Your task to perform on an android device: Go to privacy settings Image 0: 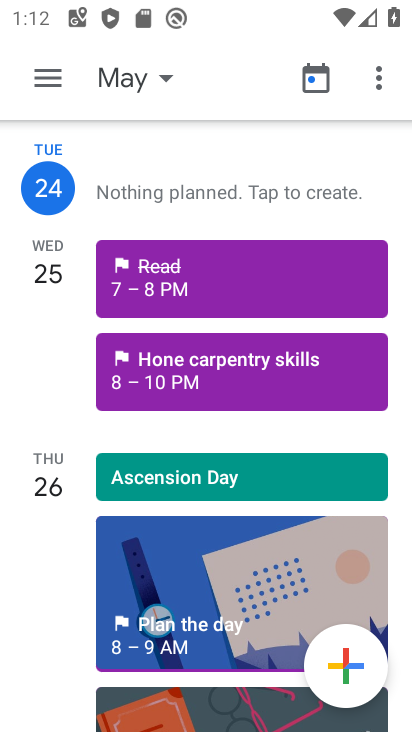
Step 0: press back button
Your task to perform on an android device: Go to privacy settings Image 1: 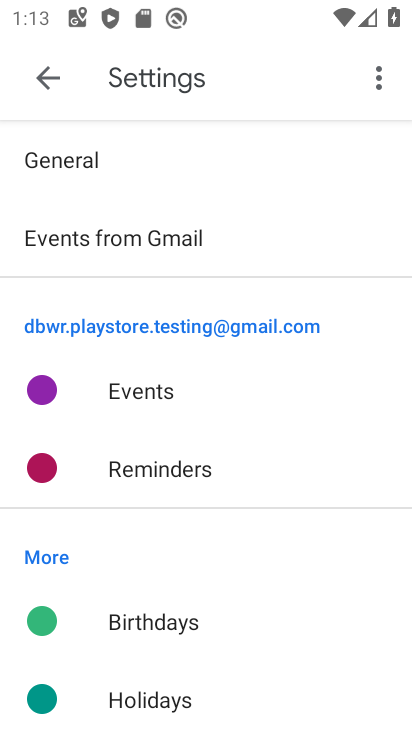
Step 1: click (45, 84)
Your task to perform on an android device: Go to privacy settings Image 2: 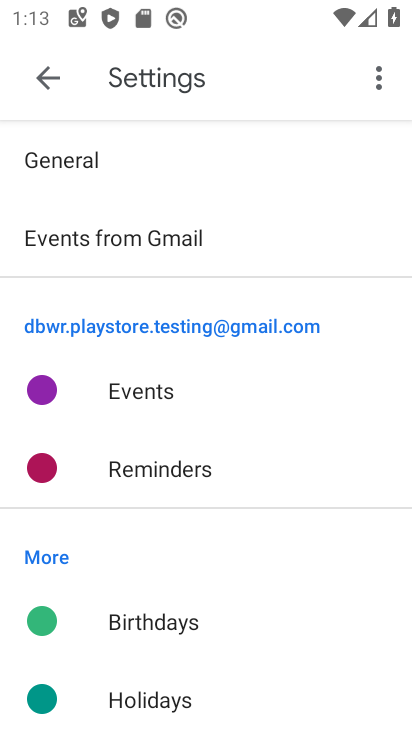
Step 2: click (44, 83)
Your task to perform on an android device: Go to privacy settings Image 3: 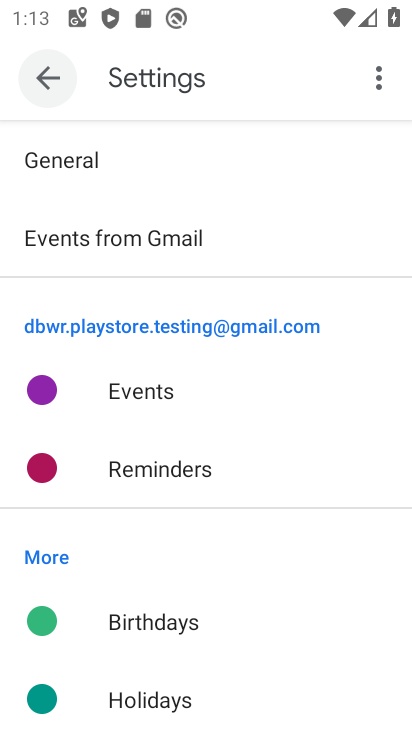
Step 3: click (45, 82)
Your task to perform on an android device: Go to privacy settings Image 4: 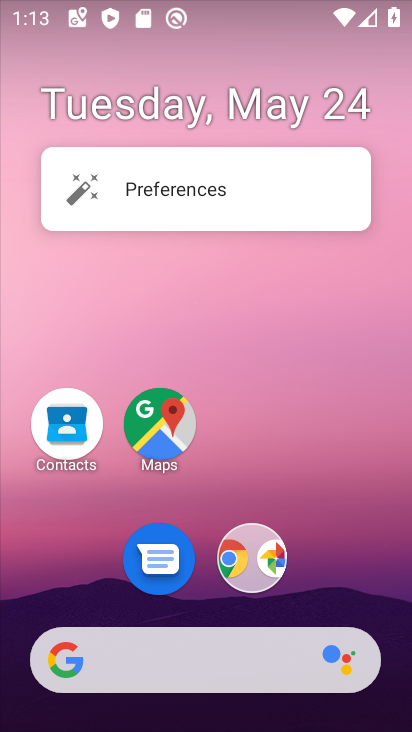
Step 4: drag from (391, 623) to (182, 26)
Your task to perform on an android device: Go to privacy settings Image 5: 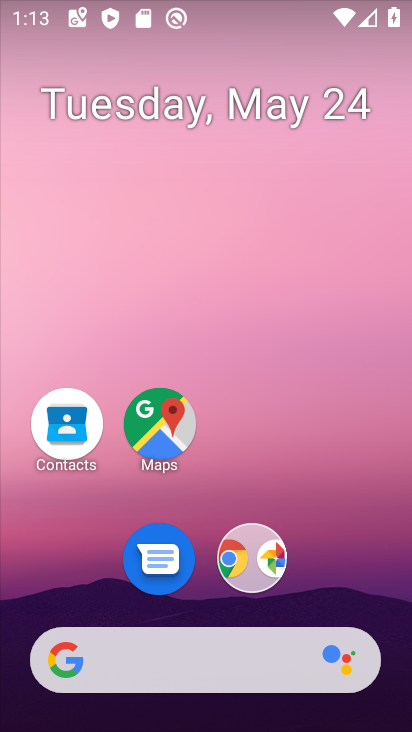
Step 5: drag from (328, 635) to (200, 47)
Your task to perform on an android device: Go to privacy settings Image 6: 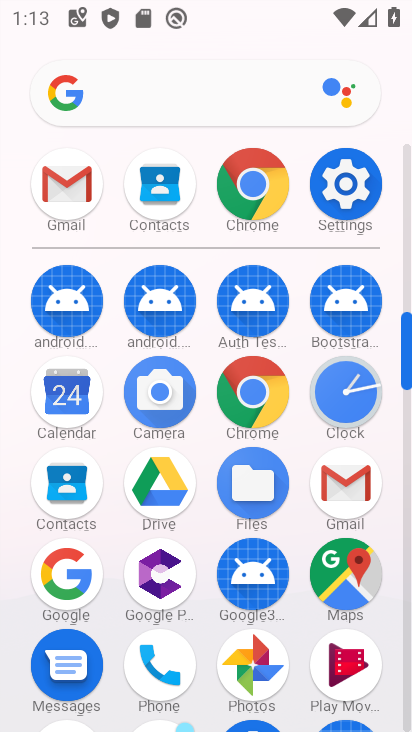
Step 6: drag from (353, 590) to (211, 59)
Your task to perform on an android device: Go to privacy settings Image 7: 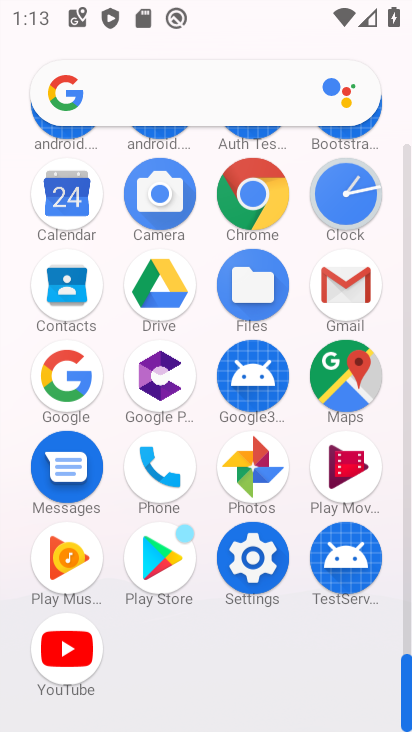
Step 7: drag from (310, 597) to (175, 65)
Your task to perform on an android device: Go to privacy settings Image 8: 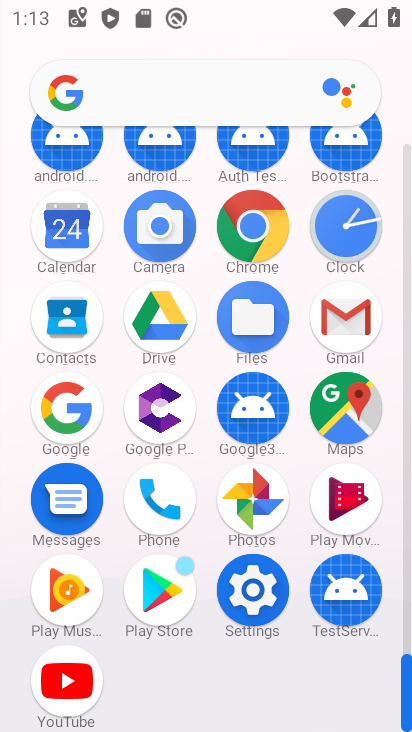
Step 8: click (252, 602)
Your task to perform on an android device: Go to privacy settings Image 9: 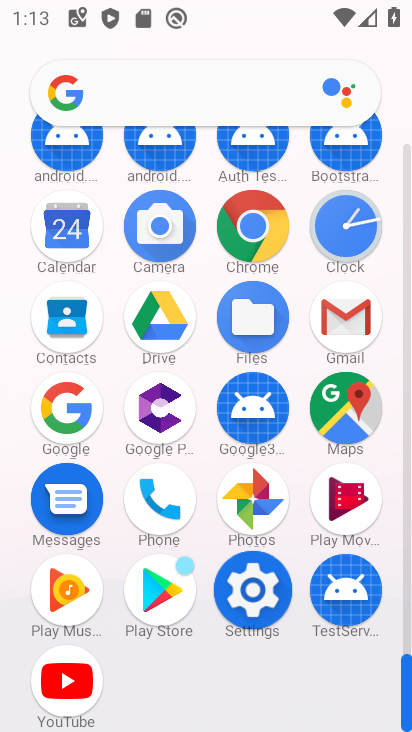
Step 9: click (258, 591)
Your task to perform on an android device: Go to privacy settings Image 10: 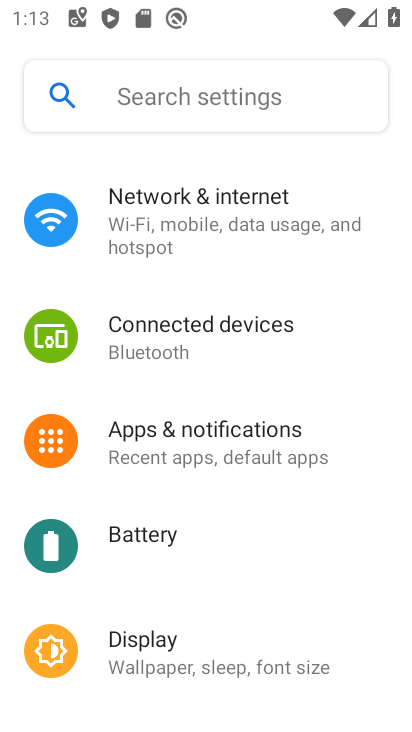
Step 10: click (259, 591)
Your task to perform on an android device: Go to privacy settings Image 11: 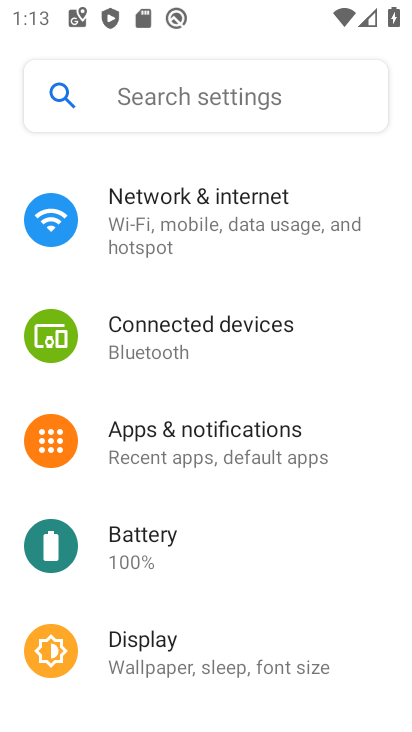
Step 11: click (260, 591)
Your task to perform on an android device: Go to privacy settings Image 12: 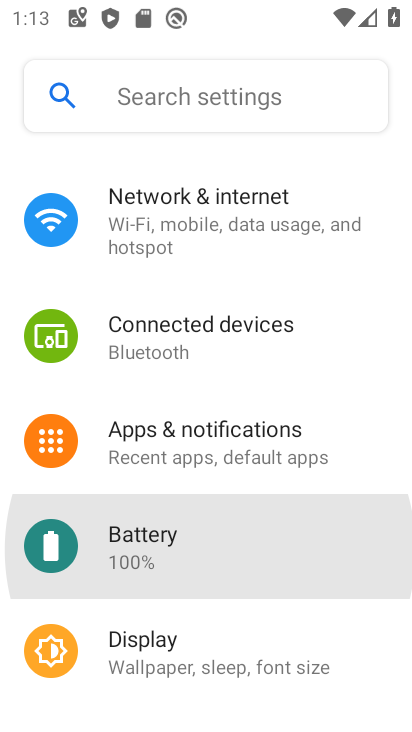
Step 12: click (260, 591)
Your task to perform on an android device: Go to privacy settings Image 13: 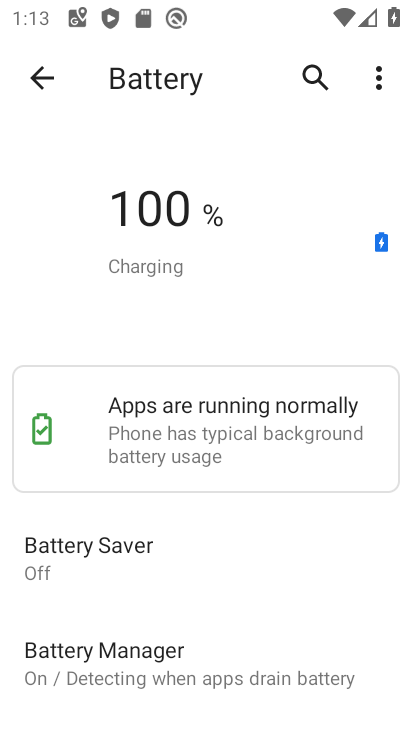
Step 13: click (36, 74)
Your task to perform on an android device: Go to privacy settings Image 14: 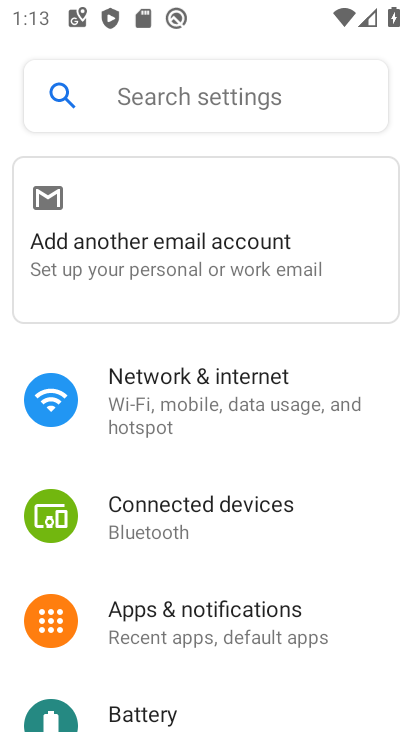
Step 14: task complete